Your task to perform on an android device: change keyboard looks Image 0: 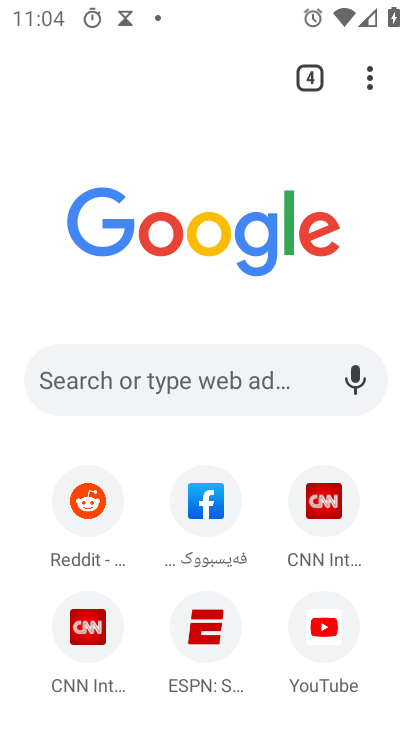
Step 0: press back button
Your task to perform on an android device: change keyboard looks Image 1: 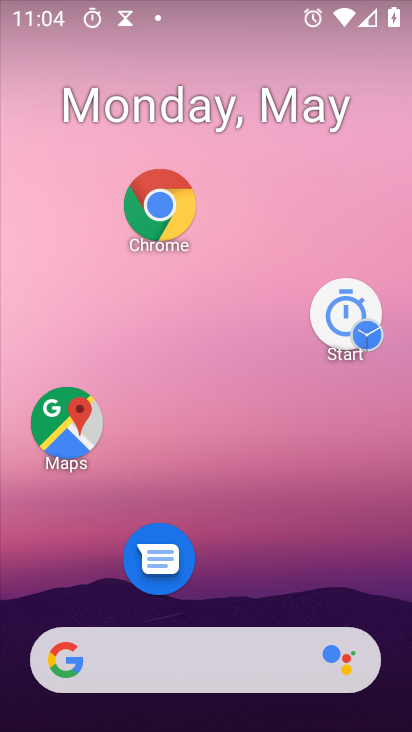
Step 1: drag from (251, 631) to (160, 167)
Your task to perform on an android device: change keyboard looks Image 2: 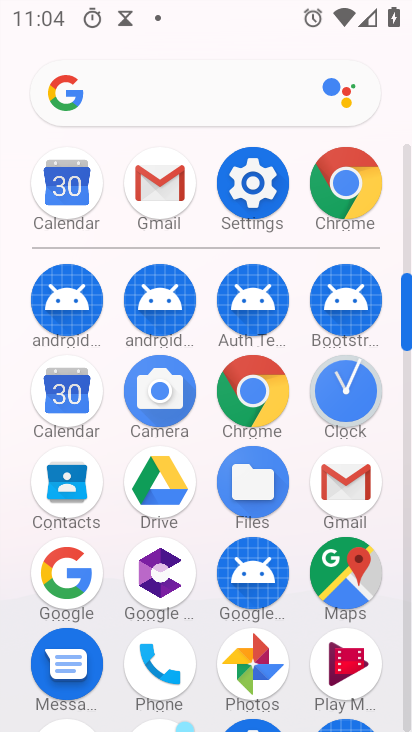
Step 2: click (248, 184)
Your task to perform on an android device: change keyboard looks Image 3: 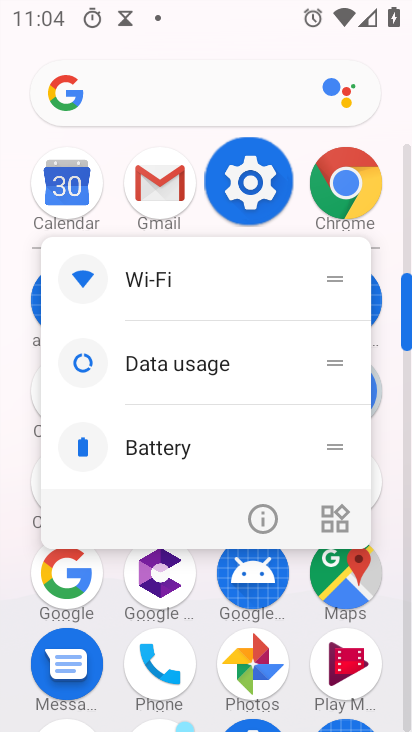
Step 3: click (245, 182)
Your task to perform on an android device: change keyboard looks Image 4: 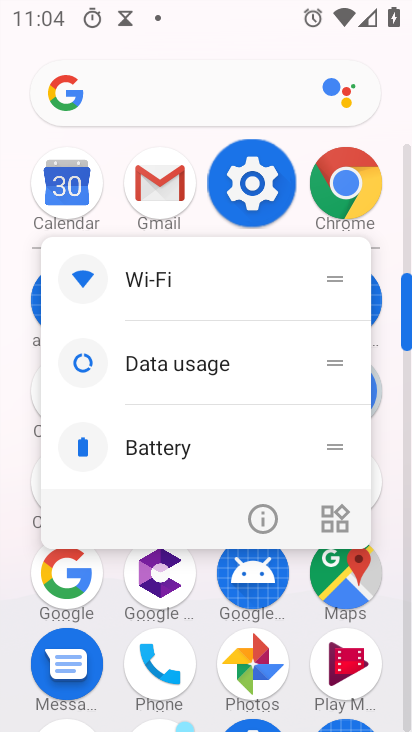
Step 4: click (245, 182)
Your task to perform on an android device: change keyboard looks Image 5: 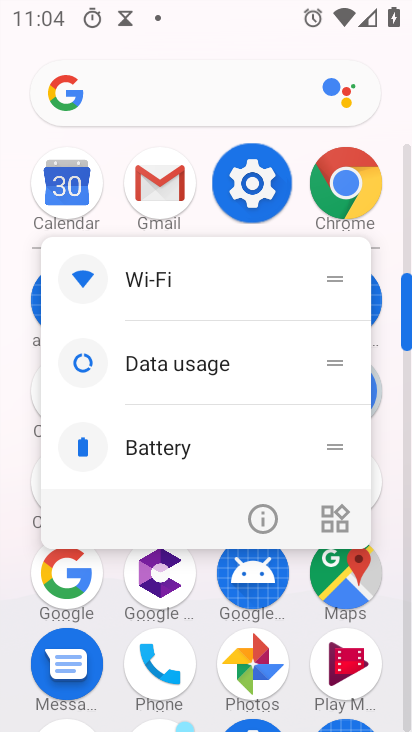
Step 5: click (248, 182)
Your task to perform on an android device: change keyboard looks Image 6: 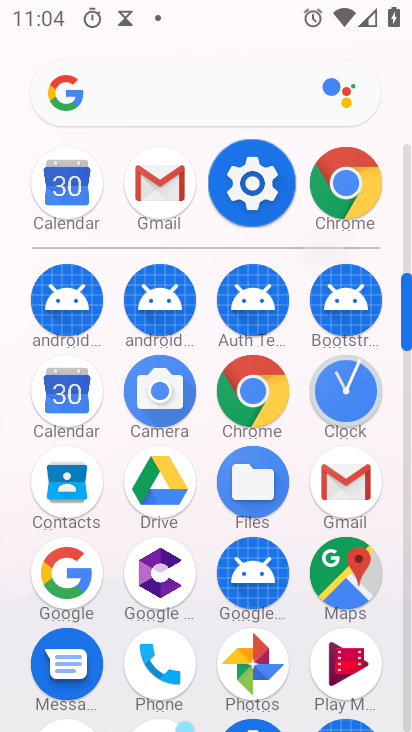
Step 6: click (248, 182)
Your task to perform on an android device: change keyboard looks Image 7: 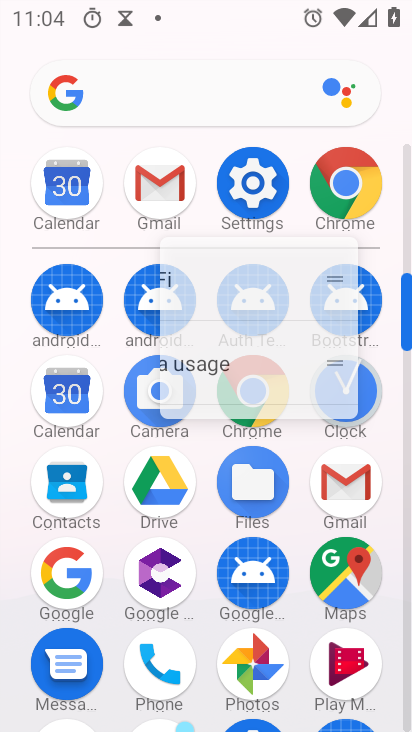
Step 7: click (249, 182)
Your task to perform on an android device: change keyboard looks Image 8: 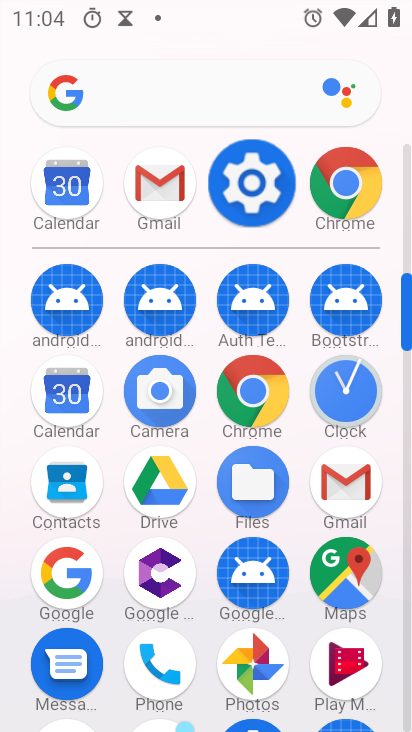
Step 8: click (249, 182)
Your task to perform on an android device: change keyboard looks Image 9: 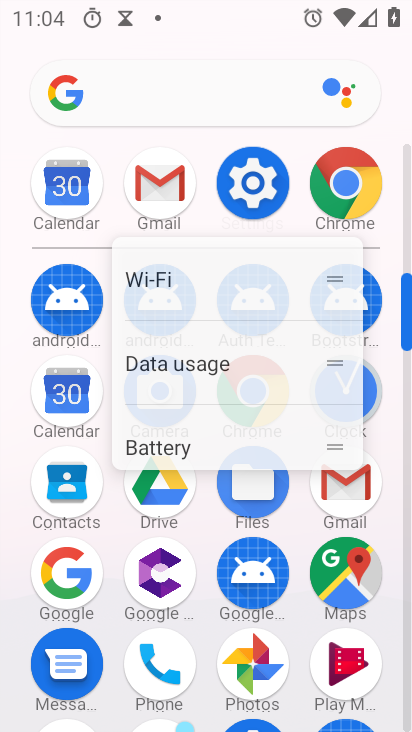
Step 9: click (251, 182)
Your task to perform on an android device: change keyboard looks Image 10: 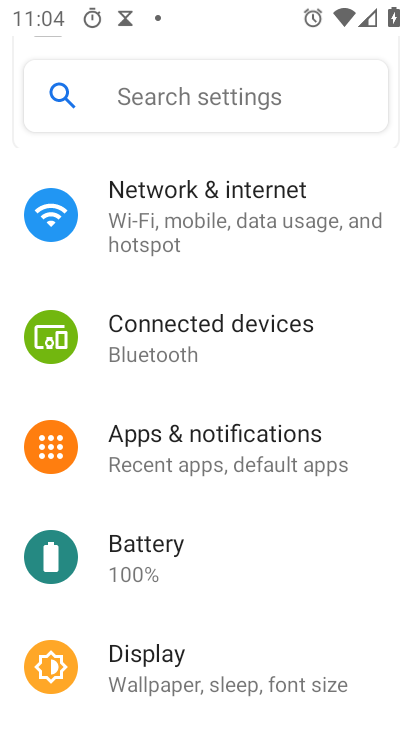
Step 10: click (249, 188)
Your task to perform on an android device: change keyboard looks Image 11: 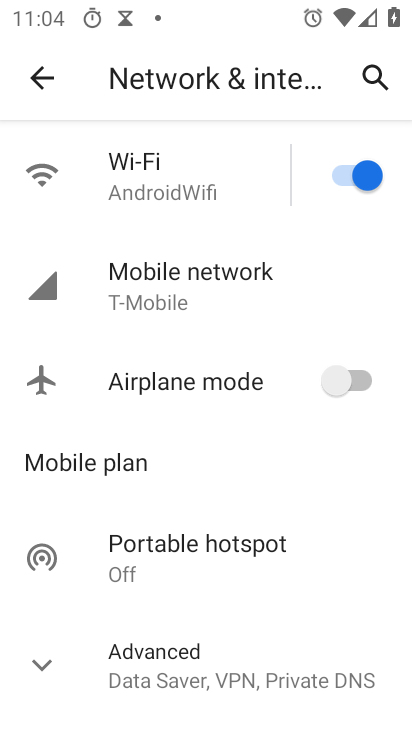
Step 11: click (39, 77)
Your task to perform on an android device: change keyboard looks Image 12: 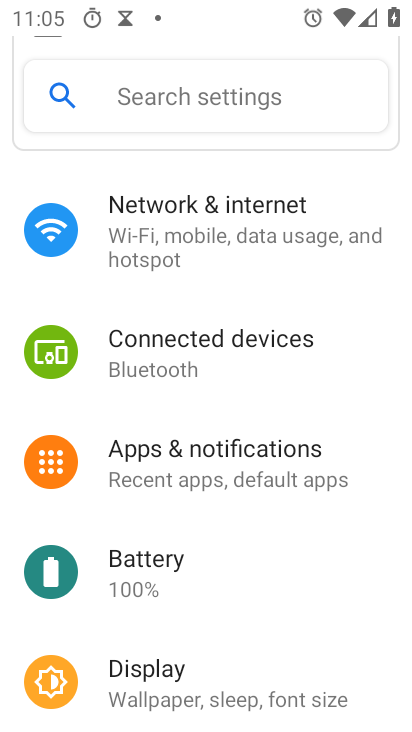
Step 12: drag from (206, 586) to (168, 244)
Your task to perform on an android device: change keyboard looks Image 13: 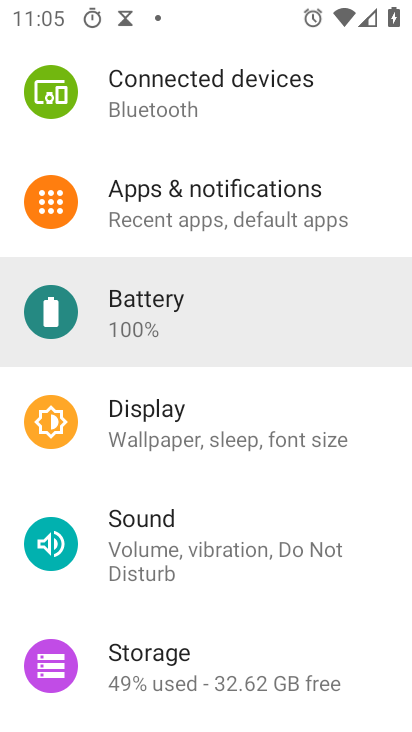
Step 13: drag from (266, 539) to (216, 138)
Your task to perform on an android device: change keyboard looks Image 14: 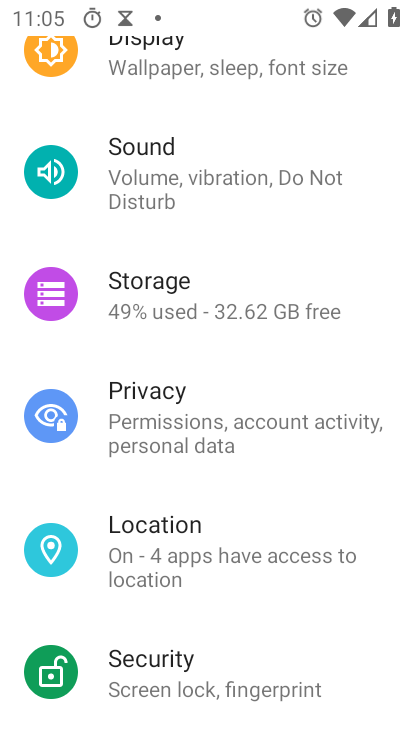
Step 14: drag from (238, 456) to (238, 156)
Your task to perform on an android device: change keyboard looks Image 15: 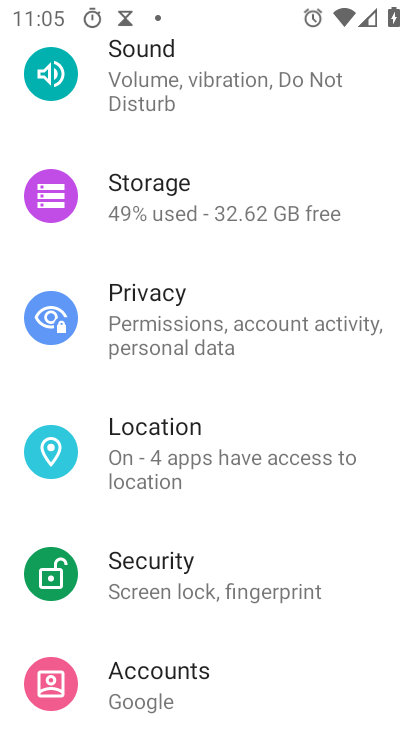
Step 15: drag from (262, 468) to (259, 180)
Your task to perform on an android device: change keyboard looks Image 16: 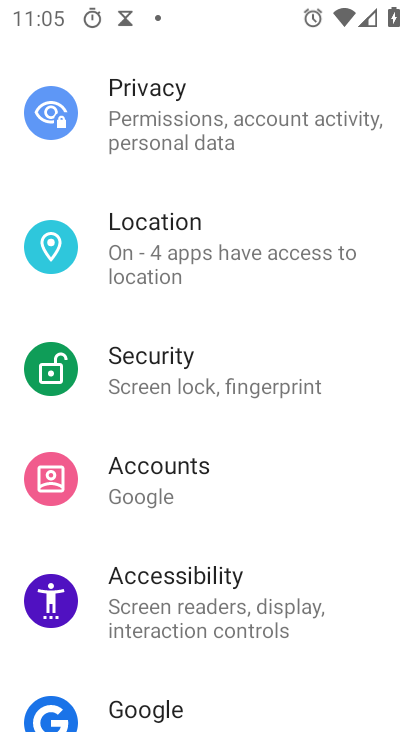
Step 16: drag from (233, 575) to (250, 226)
Your task to perform on an android device: change keyboard looks Image 17: 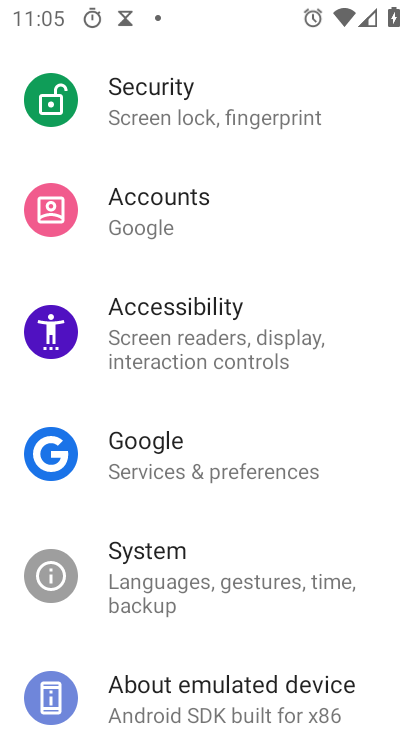
Step 17: drag from (222, 487) to (254, 156)
Your task to perform on an android device: change keyboard looks Image 18: 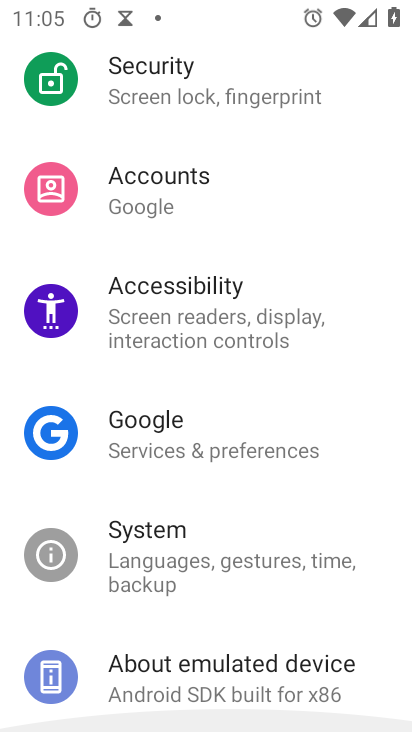
Step 18: drag from (223, 486) to (216, 210)
Your task to perform on an android device: change keyboard looks Image 19: 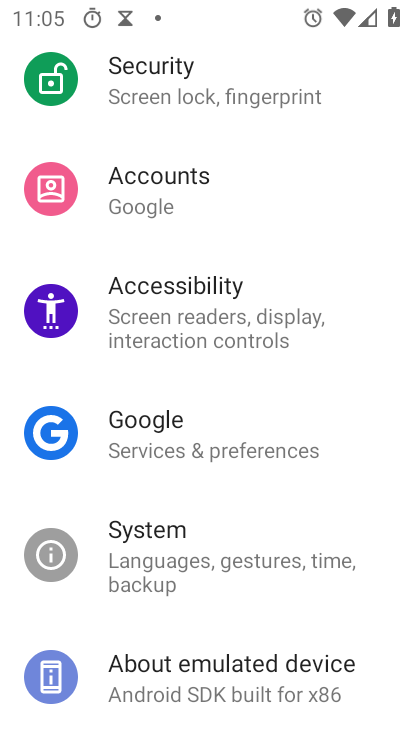
Step 19: click (127, 554)
Your task to perform on an android device: change keyboard looks Image 20: 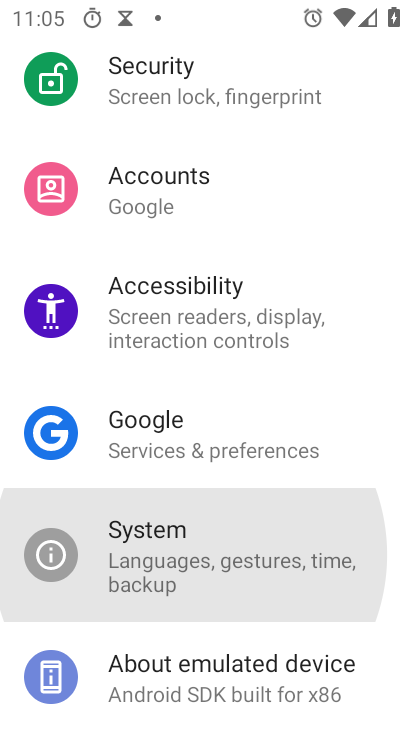
Step 20: click (127, 554)
Your task to perform on an android device: change keyboard looks Image 21: 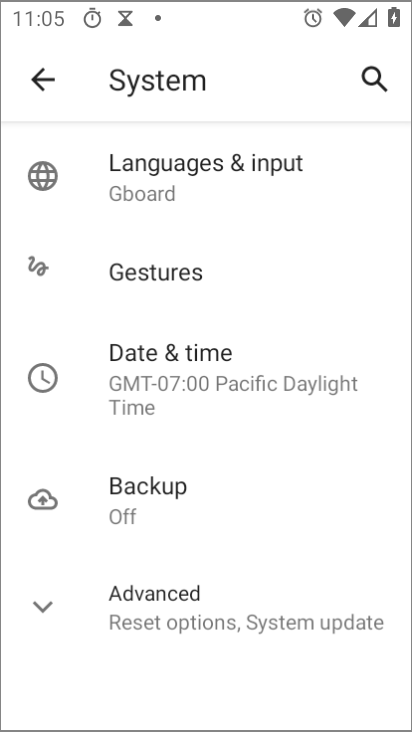
Step 21: click (138, 567)
Your task to perform on an android device: change keyboard looks Image 22: 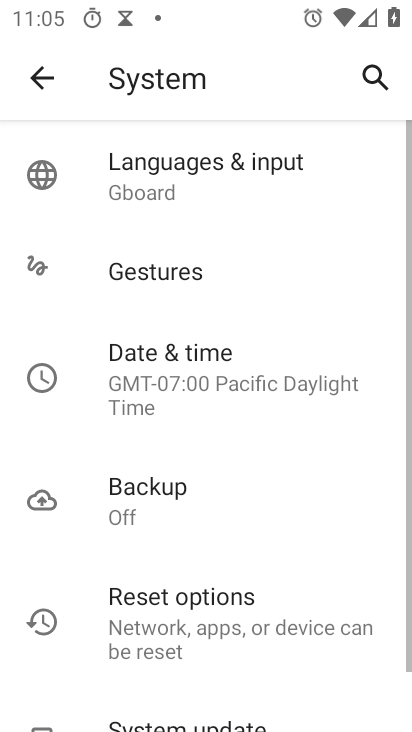
Step 22: click (150, 177)
Your task to perform on an android device: change keyboard looks Image 23: 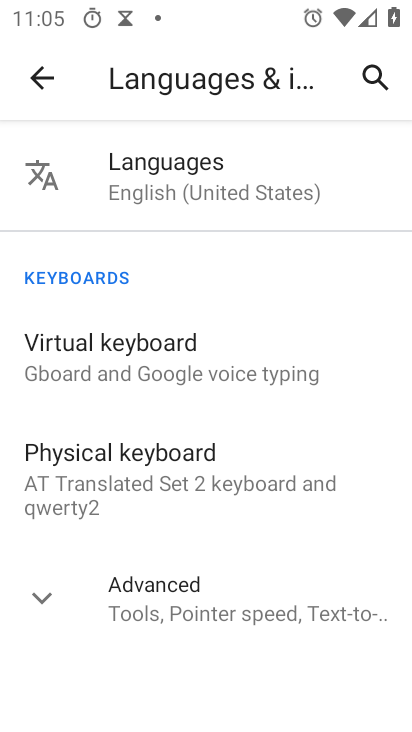
Step 23: click (104, 361)
Your task to perform on an android device: change keyboard looks Image 24: 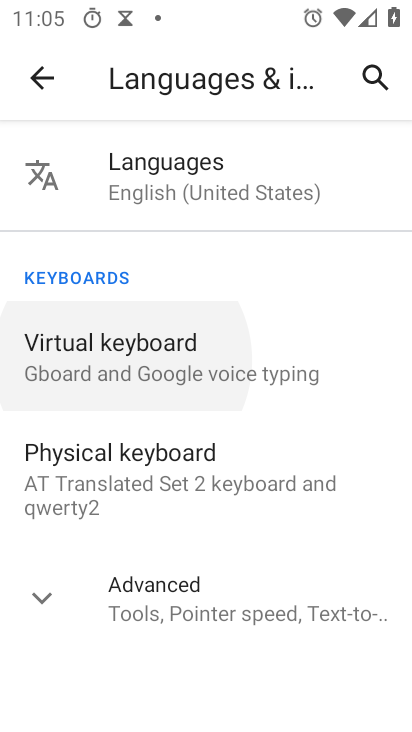
Step 24: click (106, 359)
Your task to perform on an android device: change keyboard looks Image 25: 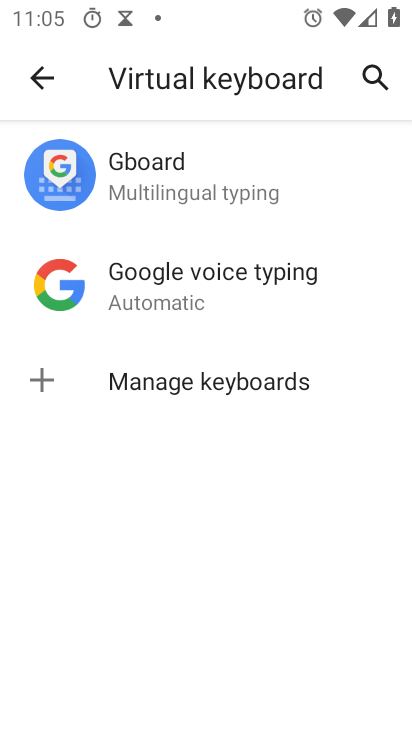
Step 25: click (127, 186)
Your task to perform on an android device: change keyboard looks Image 26: 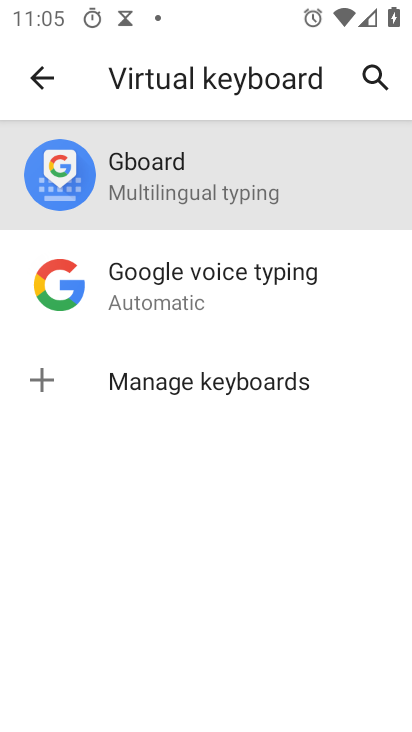
Step 26: click (129, 186)
Your task to perform on an android device: change keyboard looks Image 27: 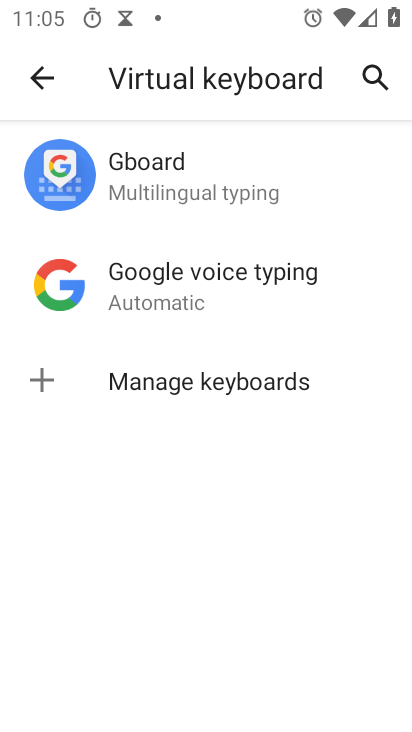
Step 27: click (130, 187)
Your task to perform on an android device: change keyboard looks Image 28: 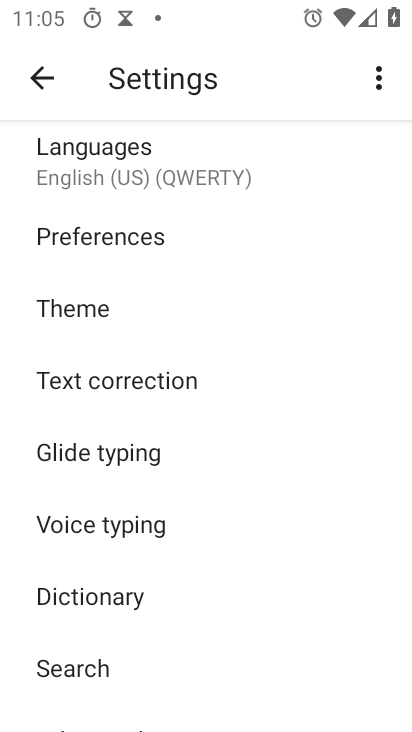
Step 28: click (46, 306)
Your task to perform on an android device: change keyboard looks Image 29: 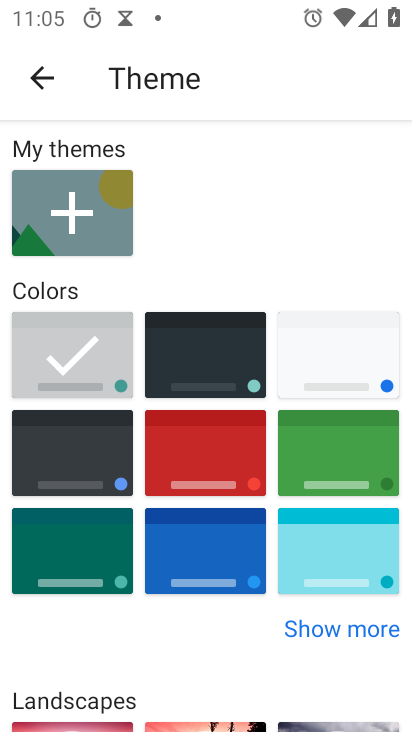
Step 29: click (195, 474)
Your task to perform on an android device: change keyboard looks Image 30: 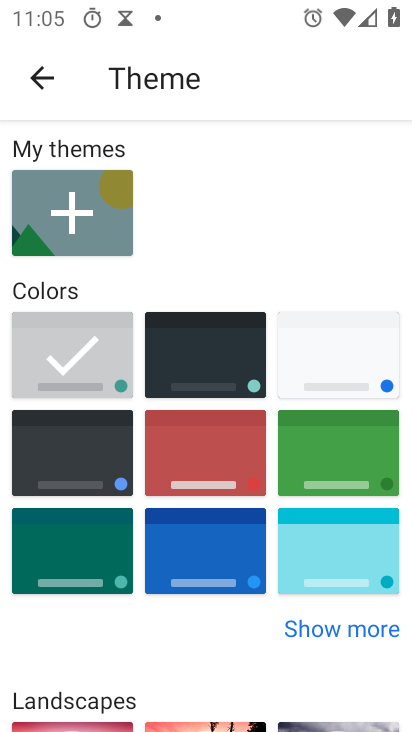
Step 30: click (189, 468)
Your task to perform on an android device: change keyboard looks Image 31: 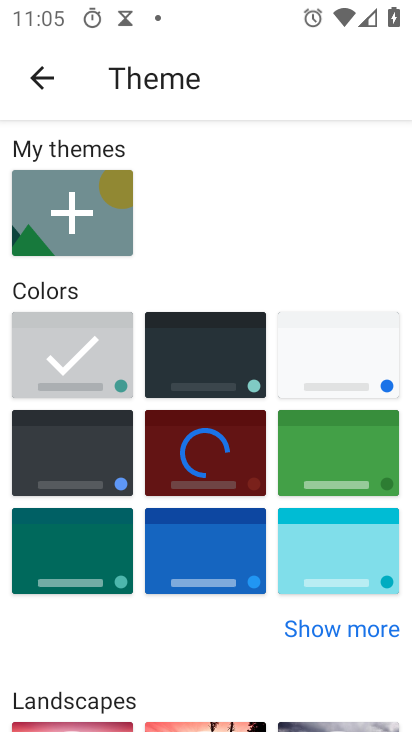
Step 31: click (184, 427)
Your task to perform on an android device: change keyboard looks Image 32: 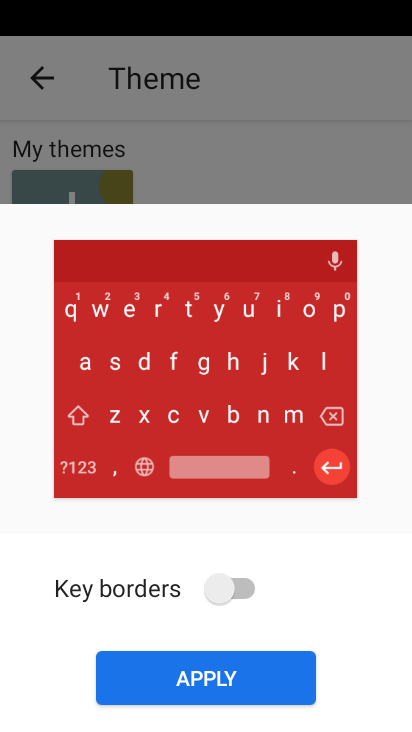
Step 32: click (203, 664)
Your task to perform on an android device: change keyboard looks Image 33: 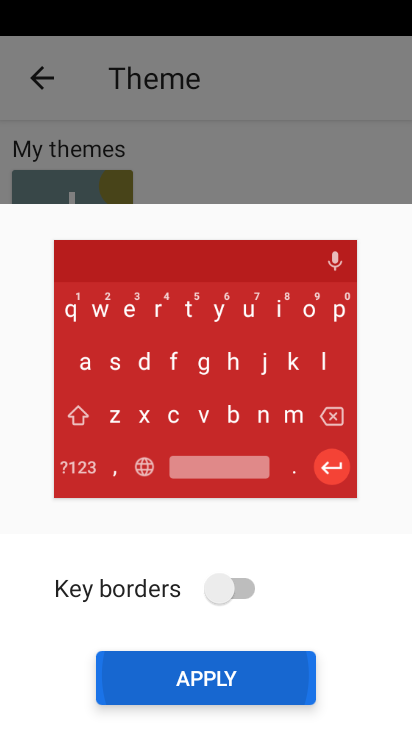
Step 33: click (210, 669)
Your task to perform on an android device: change keyboard looks Image 34: 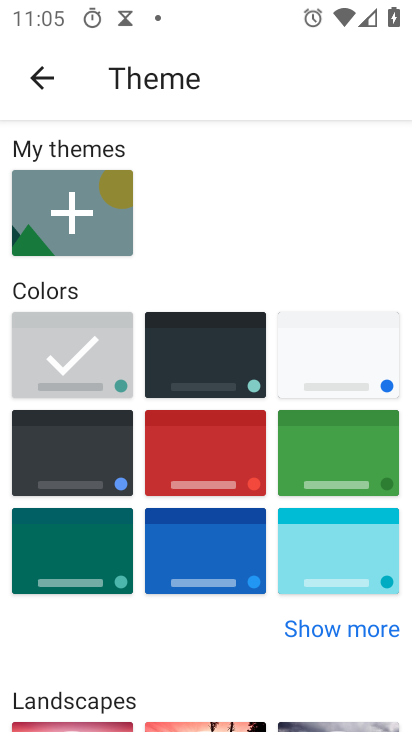
Step 34: click (213, 668)
Your task to perform on an android device: change keyboard looks Image 35: 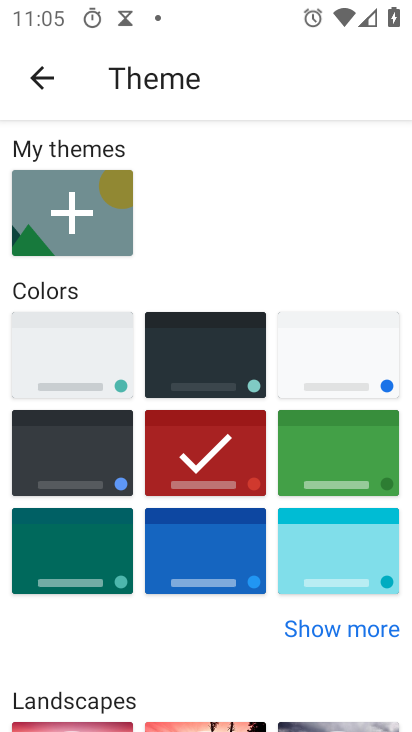
Step 35: click (216, 670)
Your task to perform on an android device: change keyboard looks Image 36: 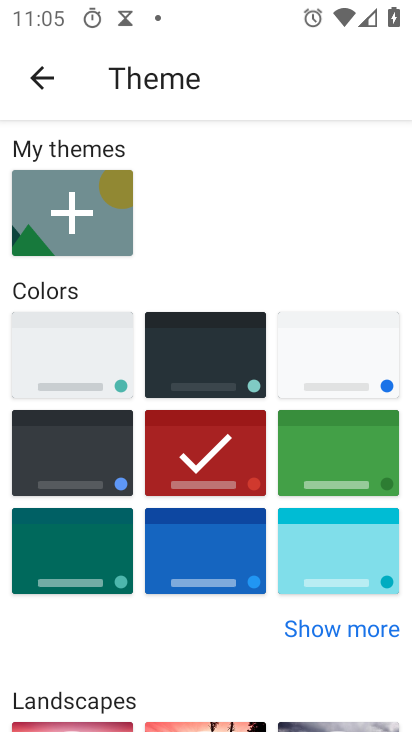
Step 36: task complete